Your task to perform on an android device: Clear the cart on target.com. Image 0: 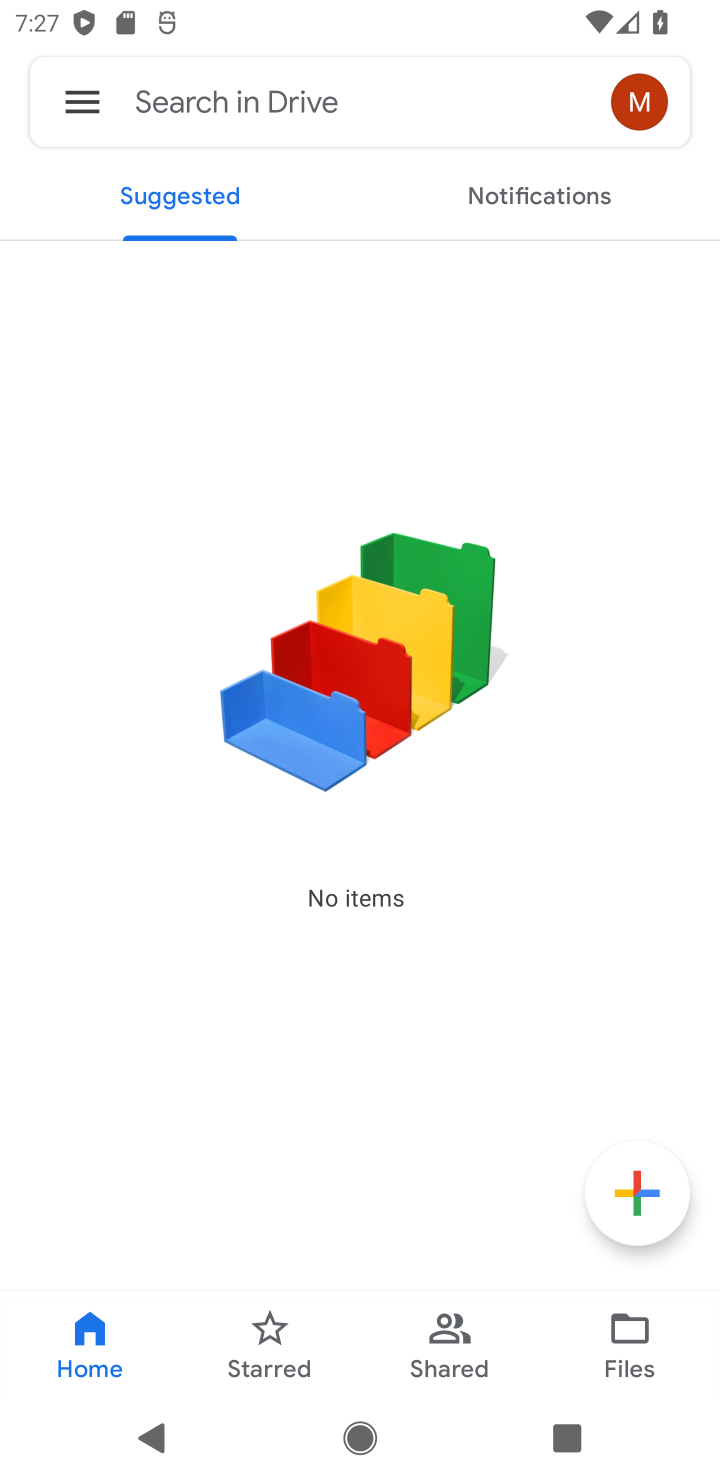
Step 0: press home button
Your task to perform on an android device: Clear the cart on target.com. Image 1: 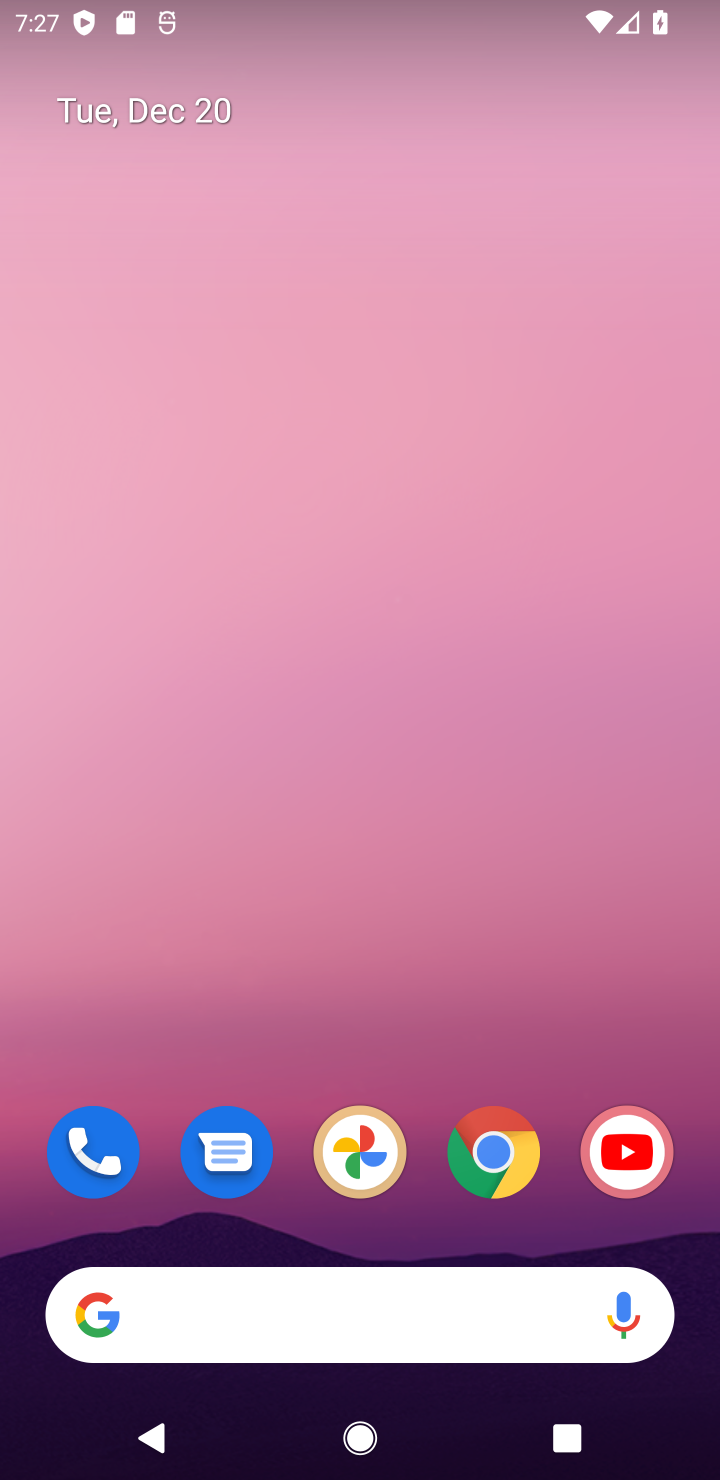
Step 1: click (484, 1155)
Your task to perform on an android device: Clear the cart on target.com. Image 2: 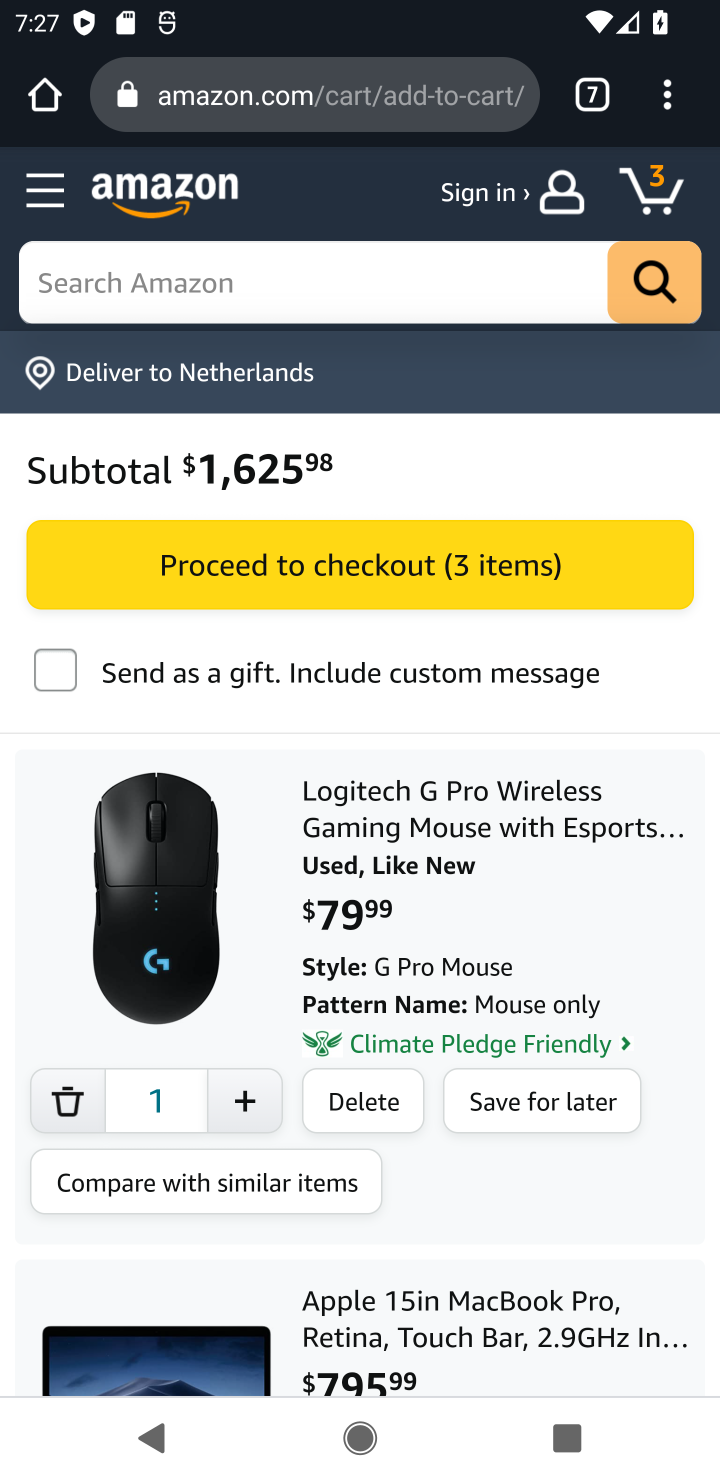
Step 2: click (586, 77)
Your task to perform on an android device: Clear the cart on target.com. Image 3: 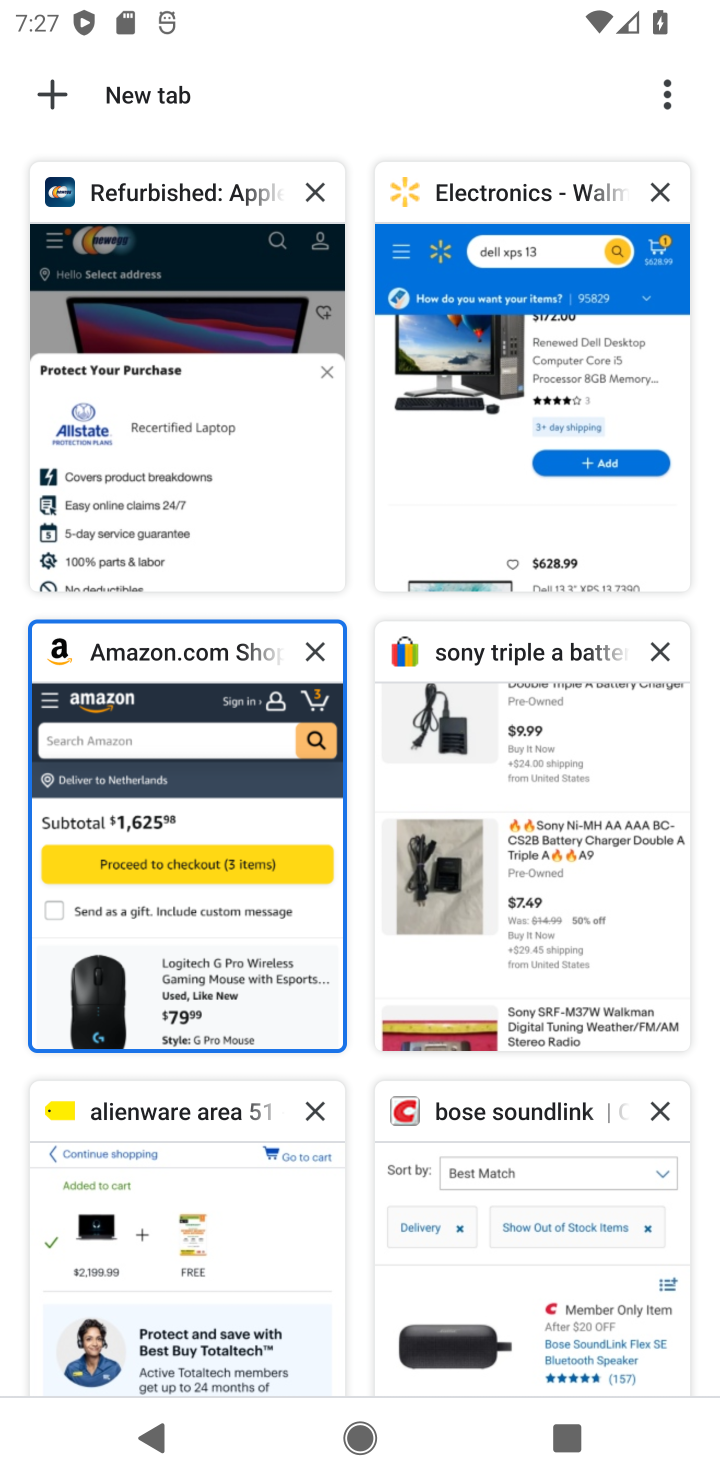
Step 3: drag from (506, 1197) to (455, 706)
Your task to perform on an android device: Clear the cart on target.com. Image 4: 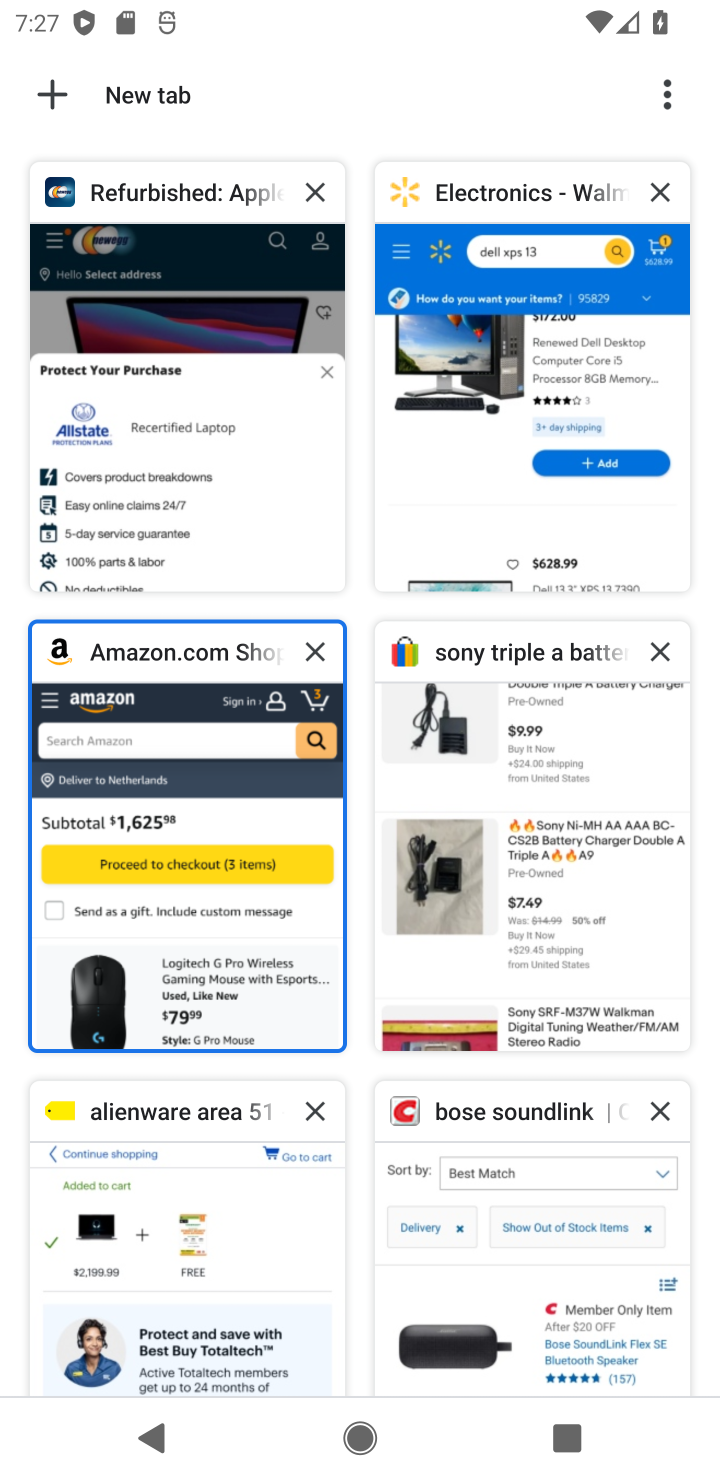
Step 4: drag from (227, 1268) to (394, 658)
Your task to perform on an android device: Clear the cart on target.com. Image 5: 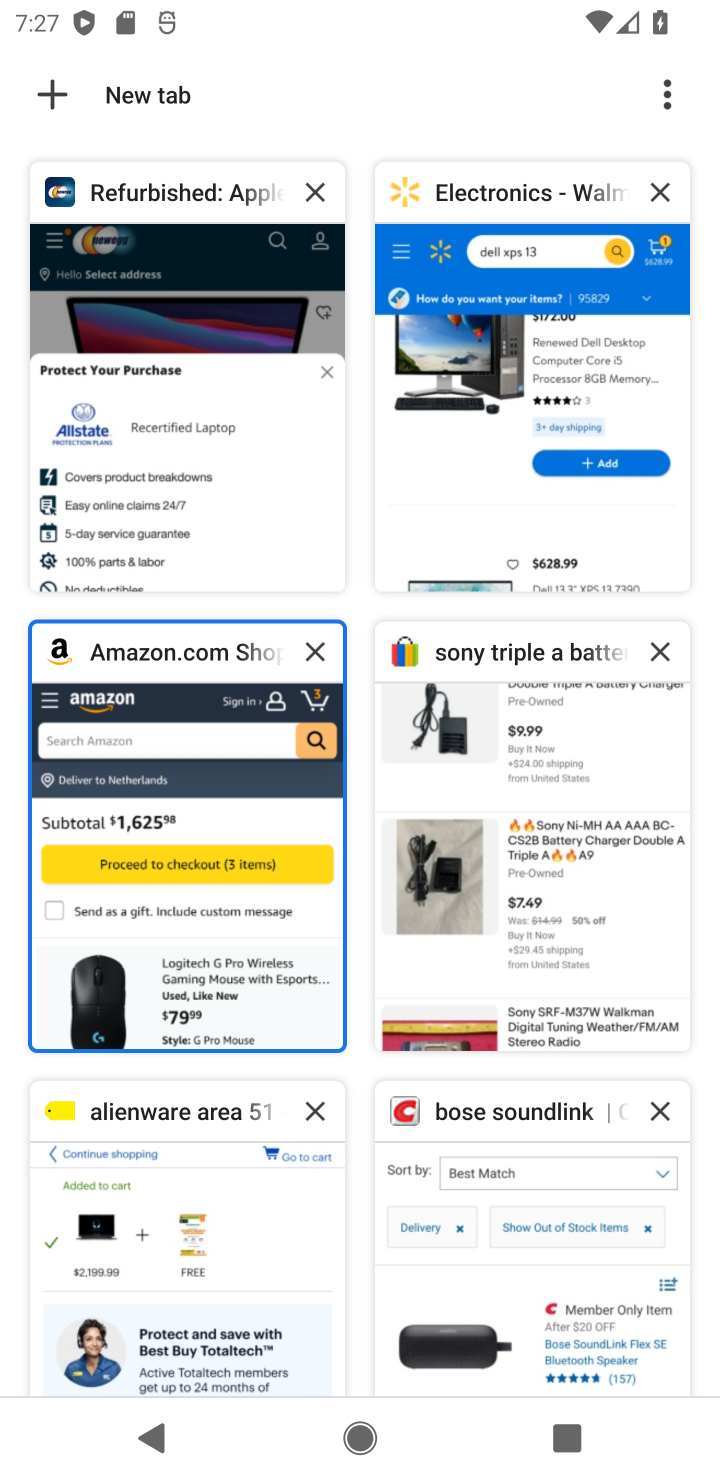
Step 5: drag from (654, 761) to (588, 163)
Your task to perform on an android device: Clear the cart on target.com. Image 6: 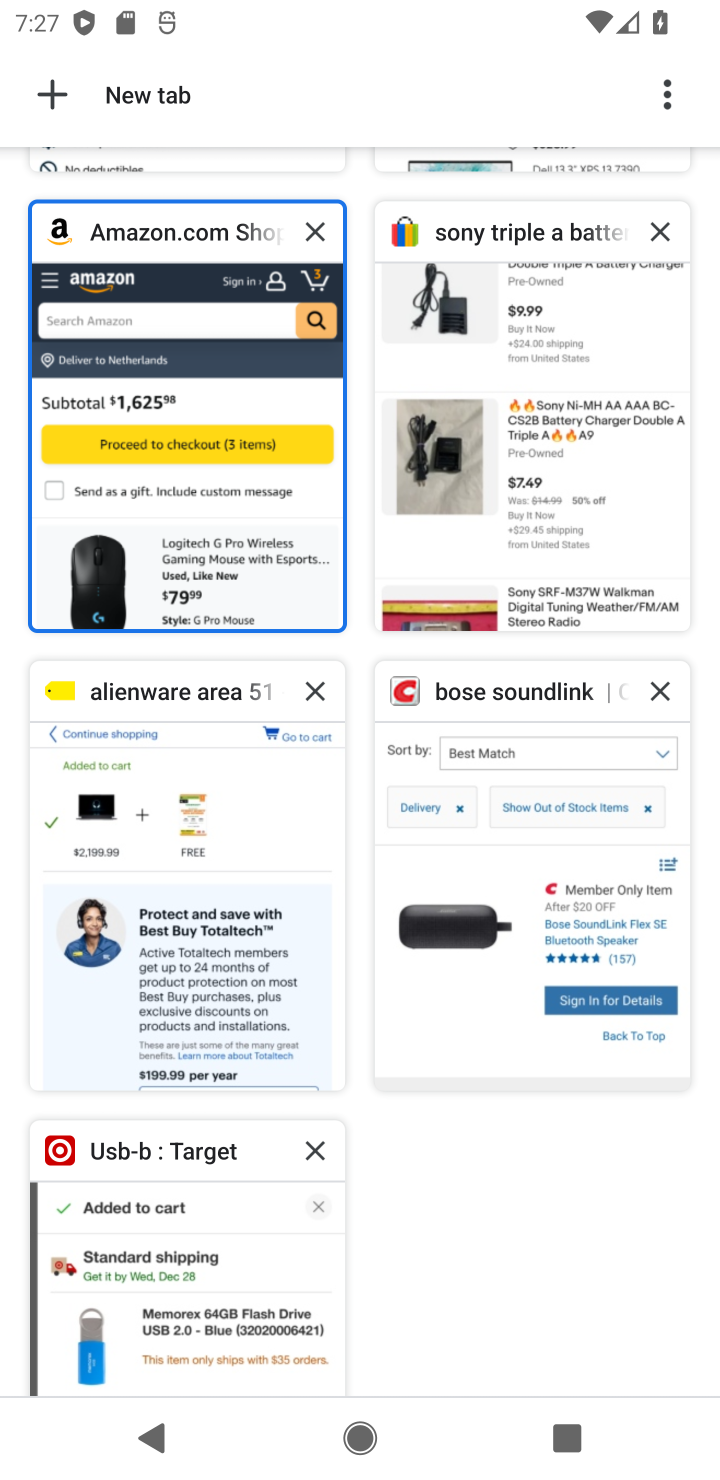
Step 6: click (192, 1262)
Your task to perform on an android device: Clear the cart on target.com. Image 7: 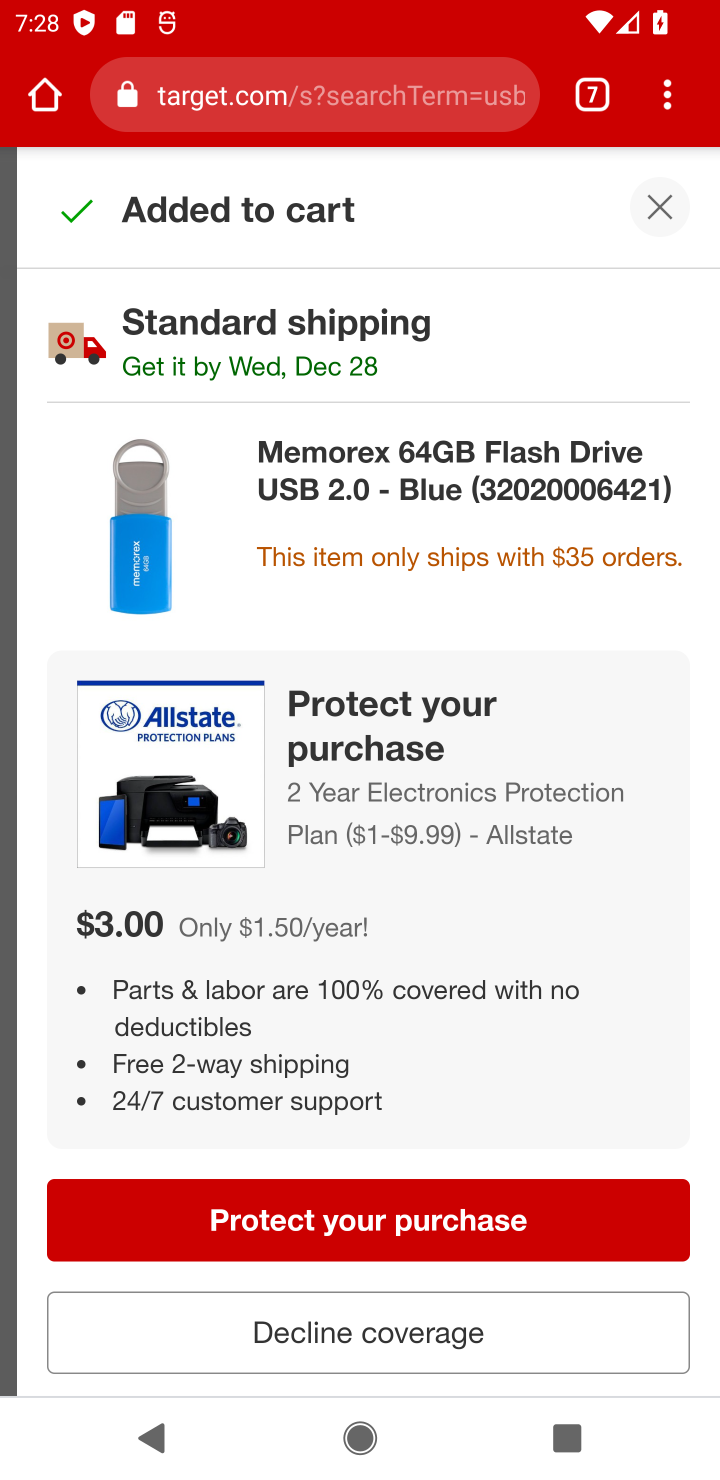
Step 7: click (663, 186)
Your task to perform on an android device: Clear the cart on target.com. Image 8: 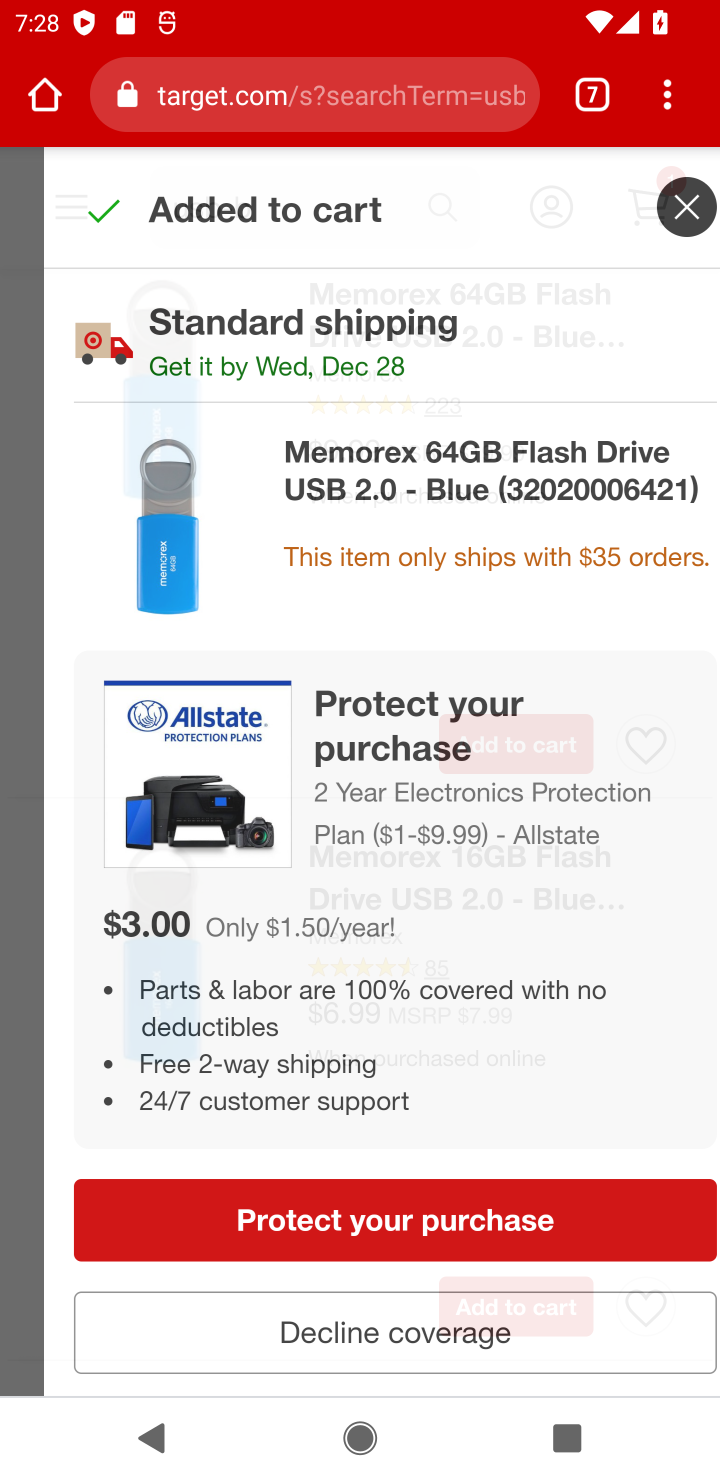
Step 8: click (405, 1340)
Your task to perform on an android device: Clear the cart on target.com. Image 9: 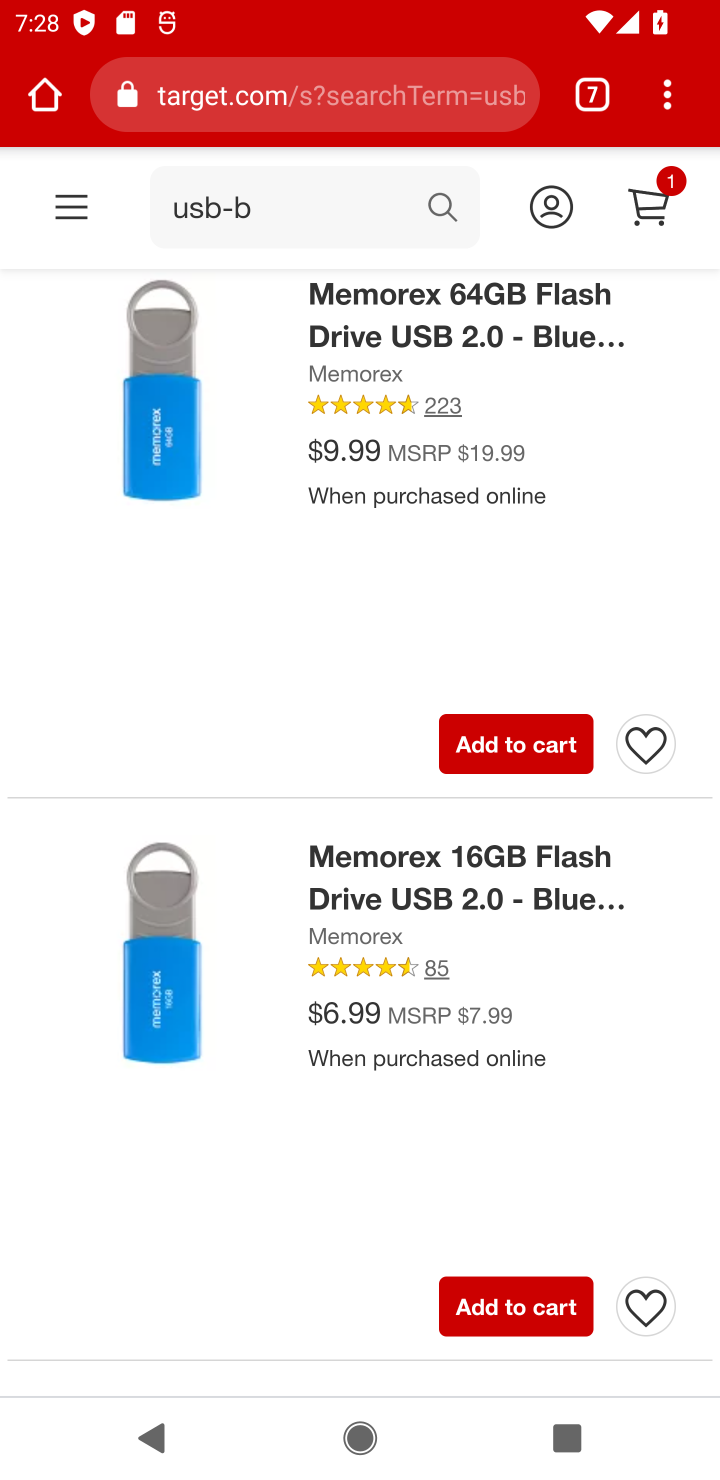
Step 9: click (658, 207)
Your task to perform on an android device: Clear the cart on target.com. Image 10: 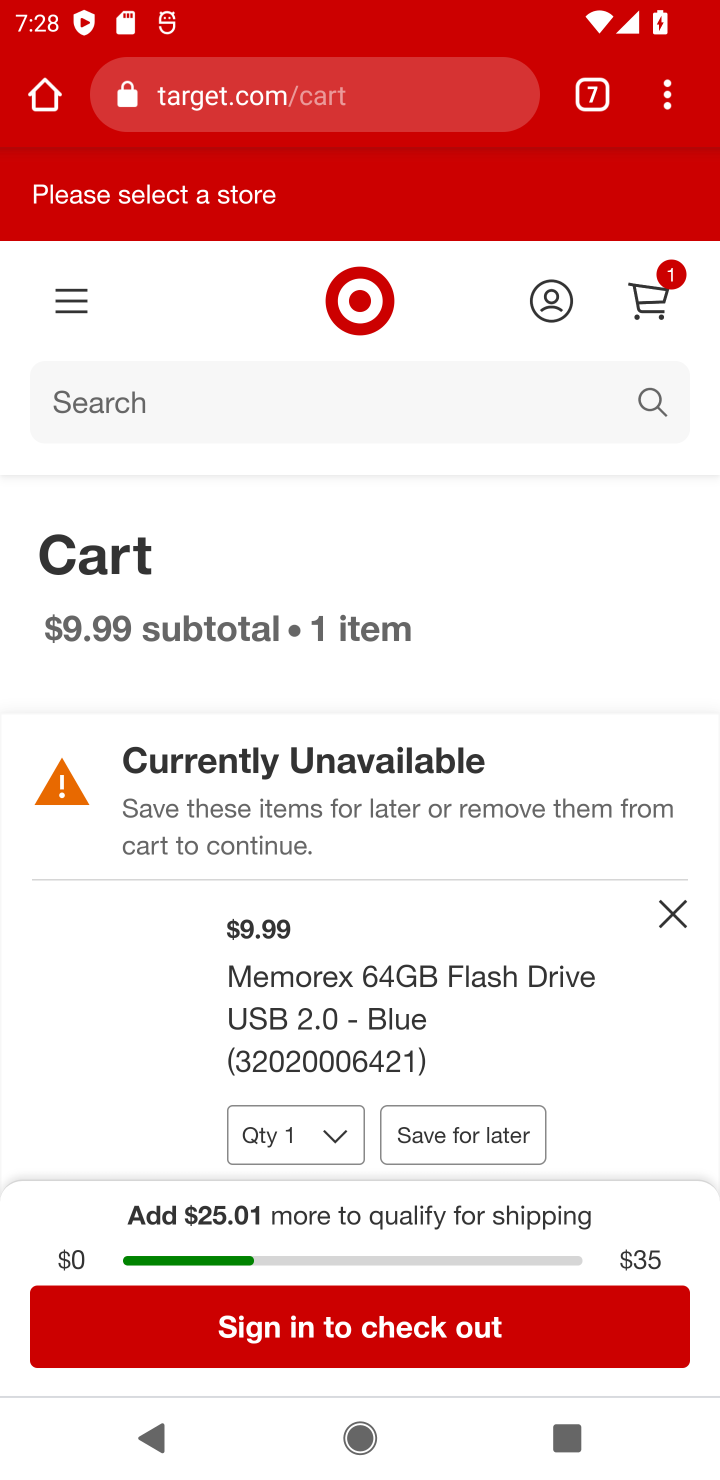
Step 10: click (679, 905)
Your task to perform on an android device: Clear the cart on target.com. Image 11: 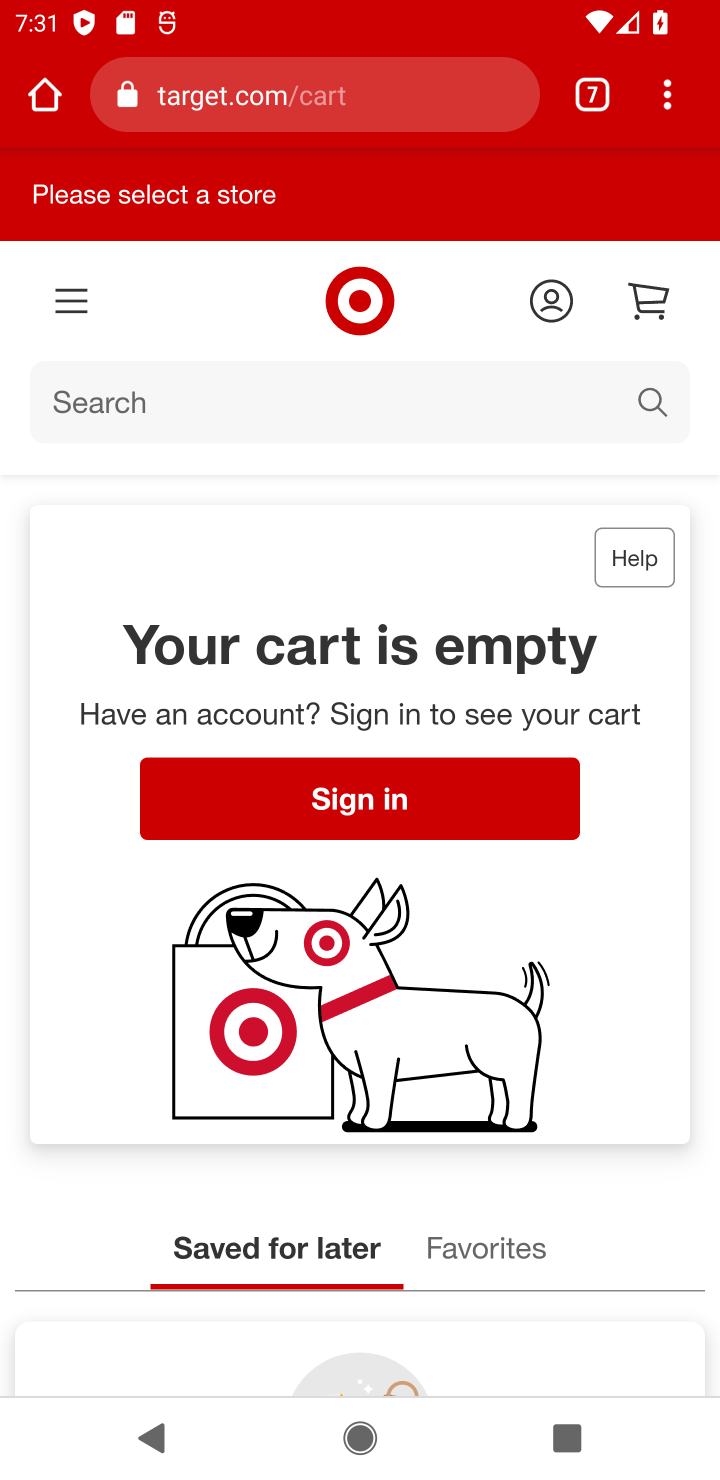
Step 11: task complete